Your task to perform on an android device: find photos in the google photos app Image 0: 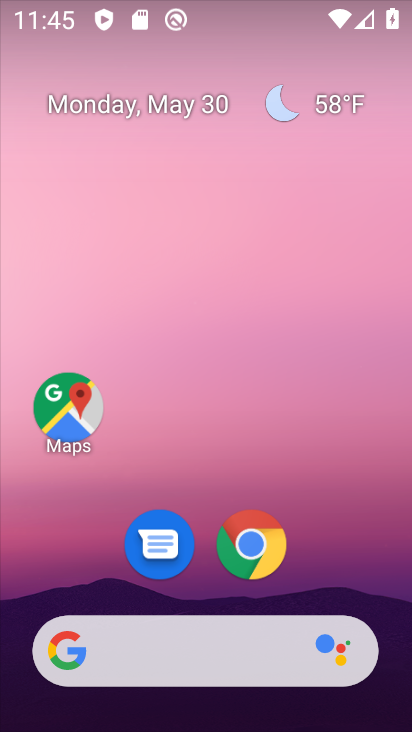
Step 0: task complete